Your task to perform on an android device: add a label to a message in the gmail app Image 0: 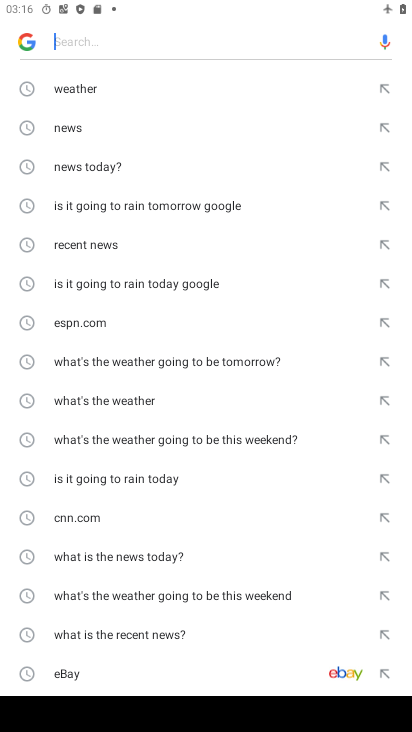
Step 0: press home button
Your task to perform on an android device: add a label to a message in the gmail app Image 1: 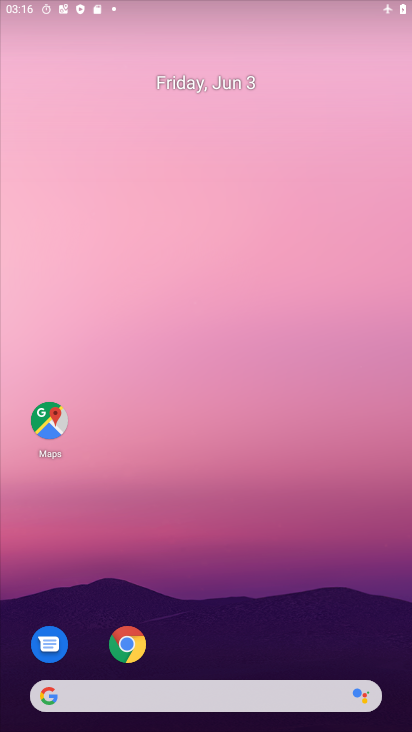
Step 1: drag from (287, 595) to (247, 156)
Your task to perform on an android device: add a label to a message in the gmail app Image 2: 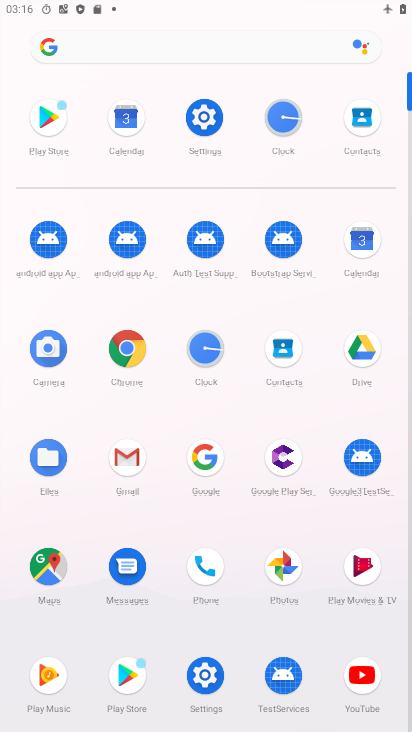
Step 2: click (119, 469)
Your task to perform on an android device: add a label to a message in the gmail app Image 3: 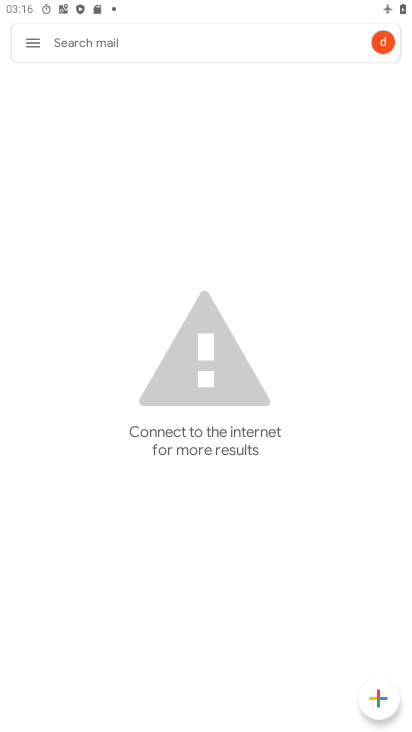
Step 3: click (40, 45)
Your task to perform on an android device: add a label to a message in the gmail app Image 4: 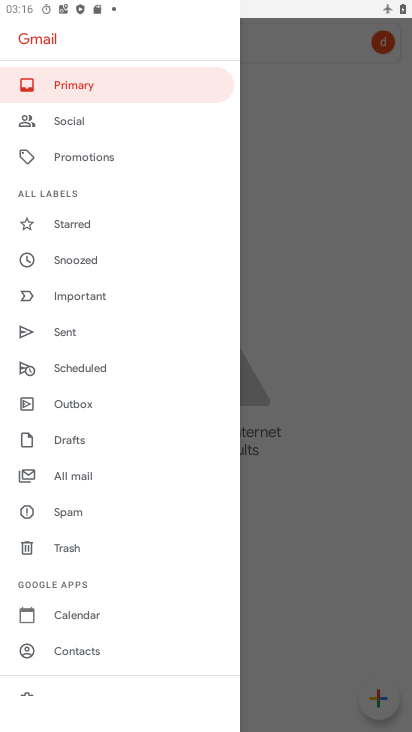
Step 4: click (80, 476)
Your task to perform on an android device: add a label to a message in the gmail app Image 5: 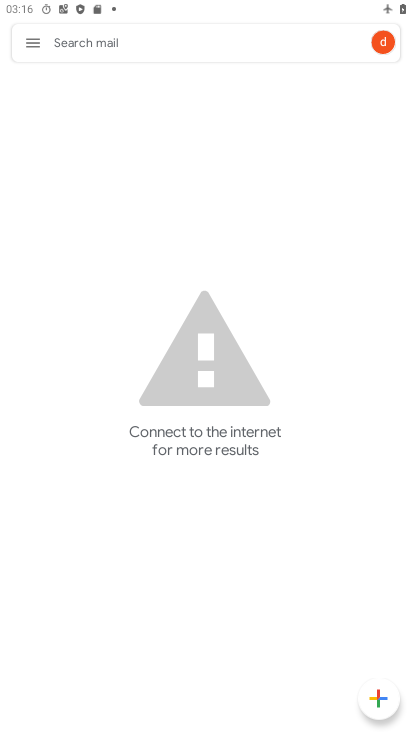
Step 5: task complete